Your task to perform on an android device: manage bookmarks in the chrome app Image 0: 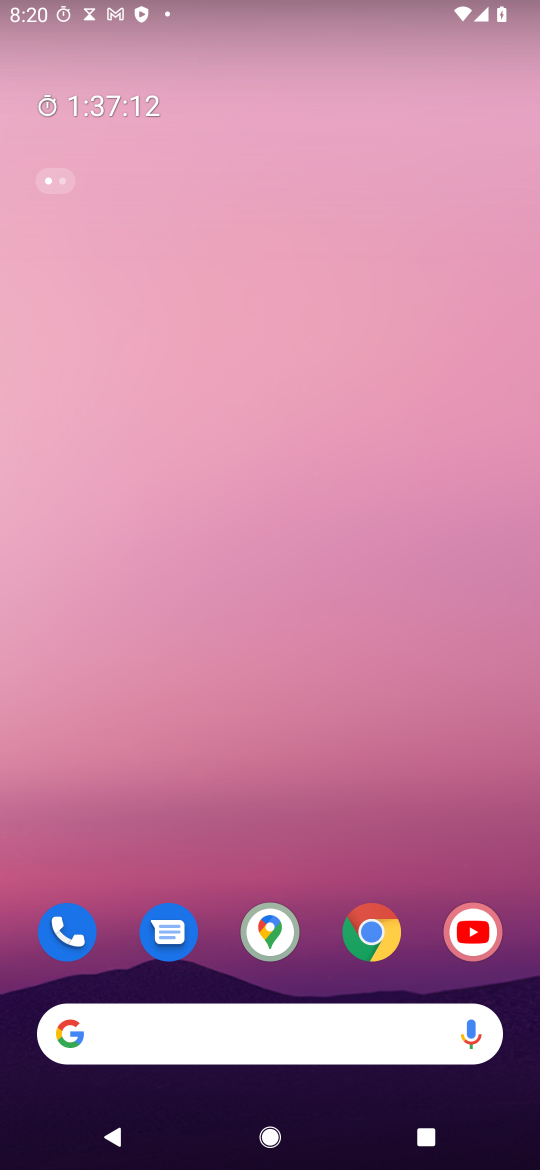
Step 0: drag from (250, 802) to (534, 449)
Your task to perform on an android device: manage bookmarks in the chrome app Image 1: 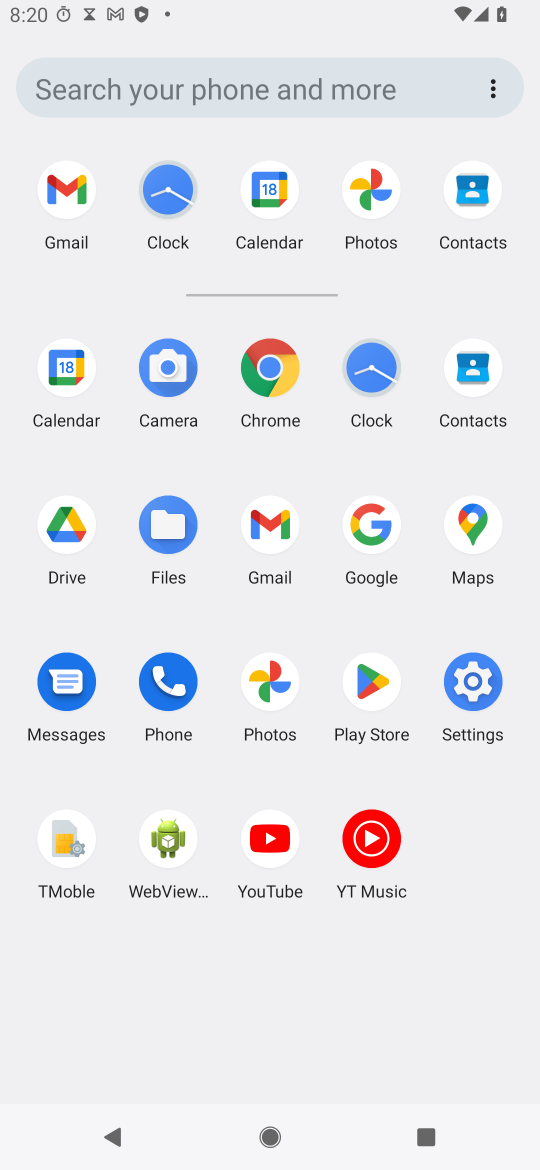
Step 1: click (289, 375)
Your task to perform on an android device: manage bookmarks in the chrome app Image 2: 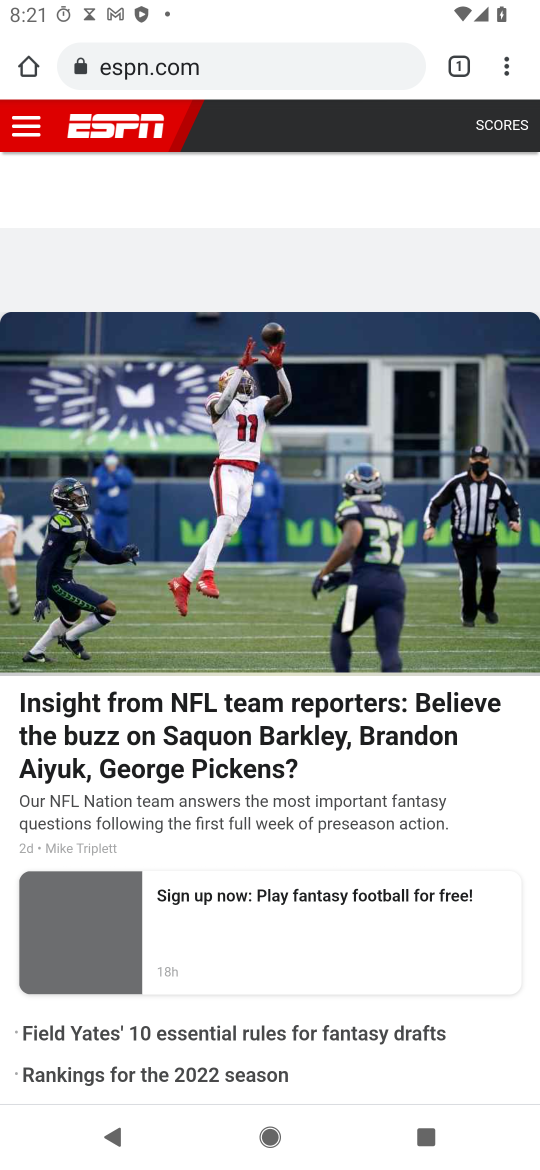
Step 2: click (503, 64)
Your task to perform on an android device: manage bookmarks in the chrome app Image 3: 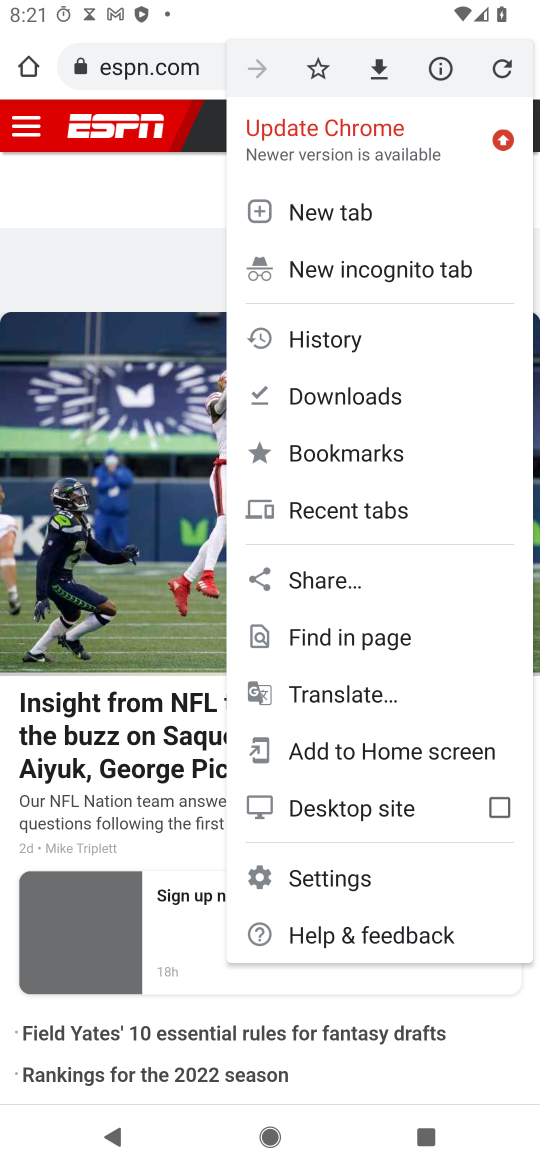
Step 3: click (327, 456)
Your task to perform on an android device: manage bookmarks in the chrome app Image 4: 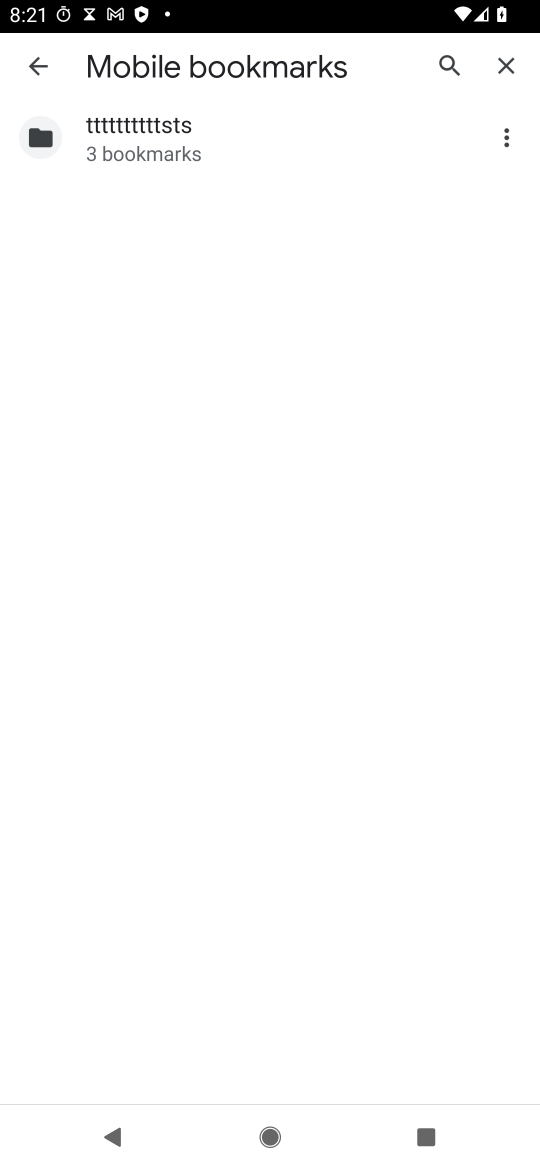
Step 4: task complete